Your task to perform on an android device: Clear the shopping cart on amazon.com. Search for "usb-a" on amazon.com, select the first entry, and add it to the cart. Image 0: 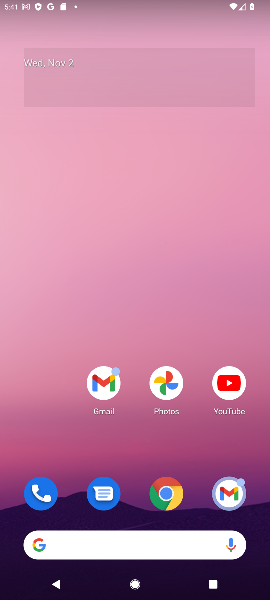
Step 0: drag from (146, 522) to (160, 164)
Your task to perform on an android device: Clear the shopping cart on amazon.com. Search for "usb-a" on amazon.com, select the first entry, and add it to the cart. Image 1: 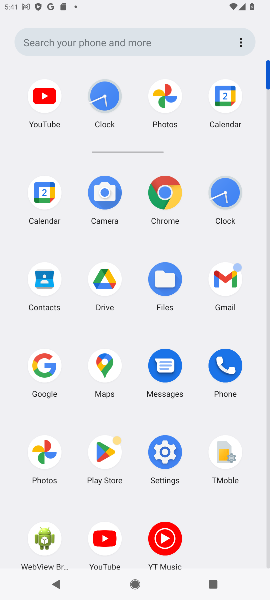
Step 1: click (50, 366)
Your task to perform on an android device: Clear the shopping cart on amazon.com. Search for "usb-a" on amazon.com, select the first entry, and add it to the cart. Image 2: 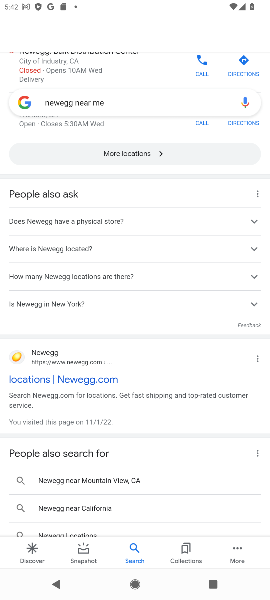
Step 2: click (88, 104)
Your task to perform on an android device: Clear the shopping cart on amazon.com. Search for "usb-a" on amazon.com, select the first entry, and add it to the cart. Image 3: 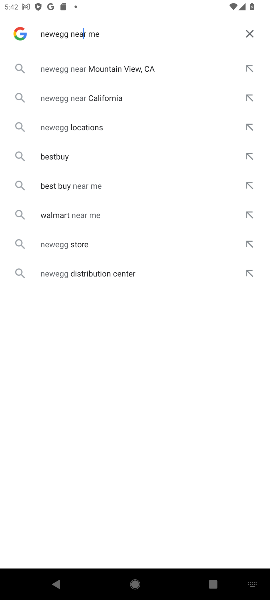
Step 3: click (252, 32)
Your task to perform on an android device: Clear the shopping cart on amazon.com. Search for "usb-a" on amazon.com, select the first entry, and add it to the cart. Image 4: 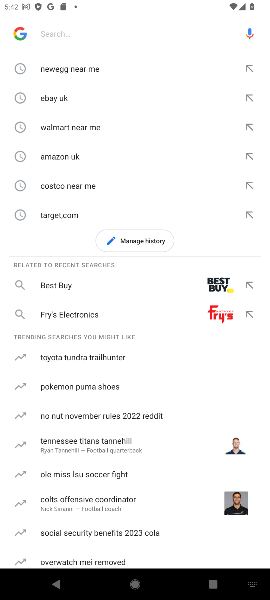
Step 4: click (68, 156)
Your task to perform on an android device: Clear the shopping cart on amazon.com. Search for "usb-a" on amazon.com, select the first entry, and add it to the cart. Image 5: 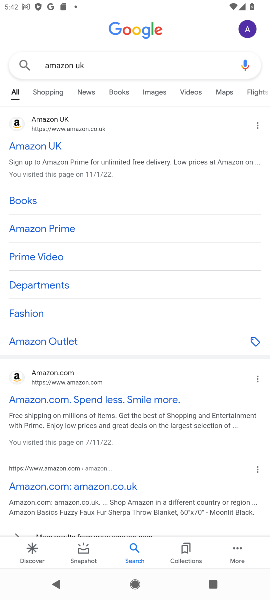
Step 5: click (27, 147)
Your task to perform on an android device: Clear the shopping cart on amazon.com. Search for "usb-a" on amazon.com, select the first entry, and add it to the cart. Image 6: 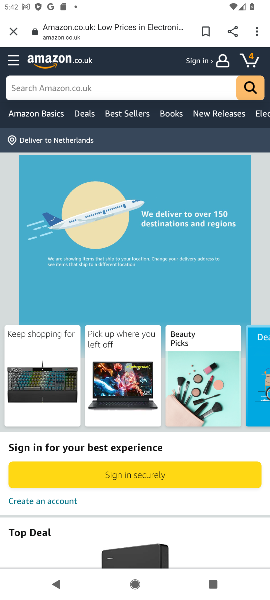
Step 6: click (77, 84)
Your task to perform on an android device: Clear the shopping cart on amazon.com. Search for "usb-a" on amazon.com, select the first entry, and add it to the cart. Image 7: 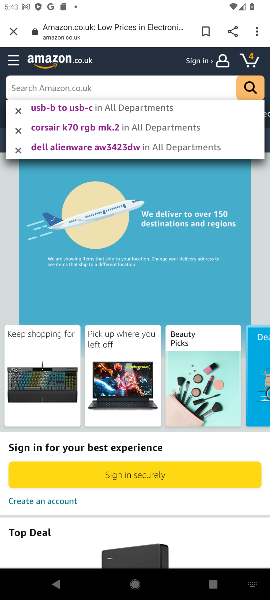
Step 7: type "usb "
Your task to perform on an android device: Clear the shopping cart on amazon.com. Search for "usb-a" on amazon.com, select the first entry, and add it to the cart. Image 8: 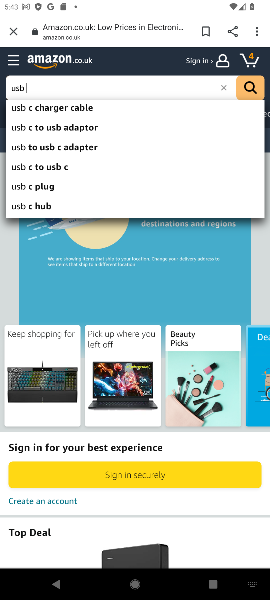
Step 8: click (49, 164)
Your task to perform on an android device: Clear the shopping cart on amazon.com. Search for "usb-a" on amazon.com, select the first entry, and add it to the cart. Image 9: 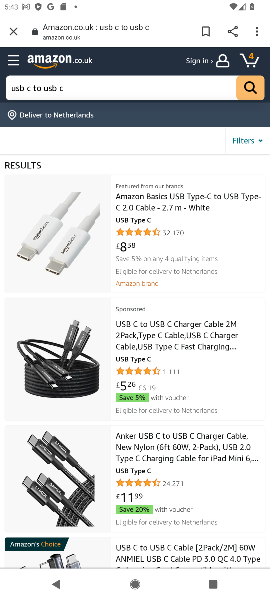
Step 9: click (151, 216)
Your task to perform on an android device: Clear the shopping cart on amazon.com. Search for "usb-a" on amazon.com, select the first entry, and add it to the cart. Image 10: 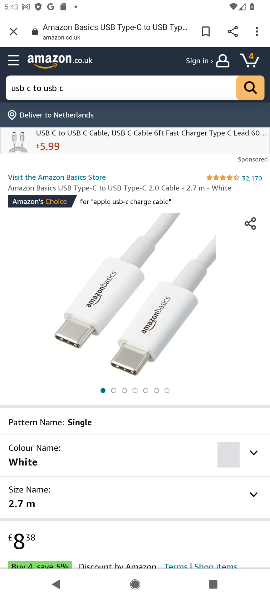
Step 10: drag from (137, 497) to (171, 202)
Your task to perform on an android device: Clear the shopping cart on amazon.com. Search for "usb-a" on amazon.com, select the first entry, and add it to the cart. Image 11: 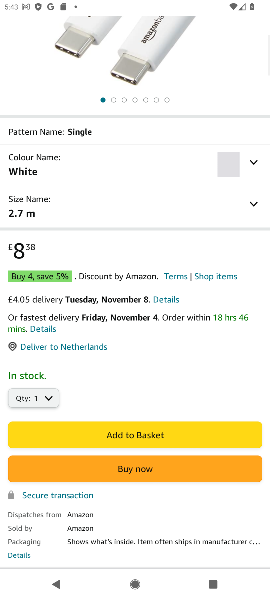
Step 11: drag from (153, 475) to (153, 441)
Your task to perform on an android device: Clear the shopping cart on amazon.com. Search for "usb-a" on amazon.com, select the first entry, and add it to the cart. Image 12: 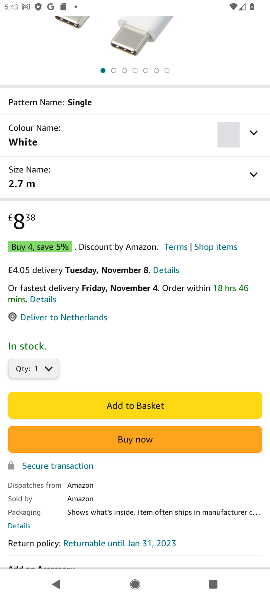
Step 12: click (163, 394)
Your task to perform on an android device: Clear the shopping cart on amazon.com. Search for "usb-a" on amazon.com, select the first entry, and add it to the cart. Image 13: 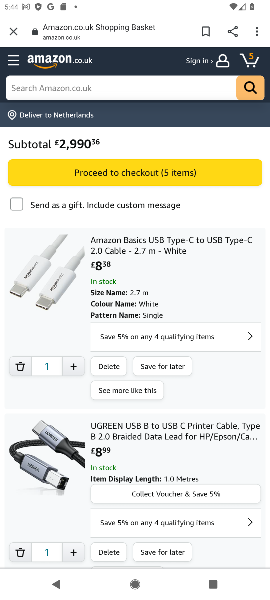
Step 13: task complete